Your task to perform on an android device: check storage Image 0: 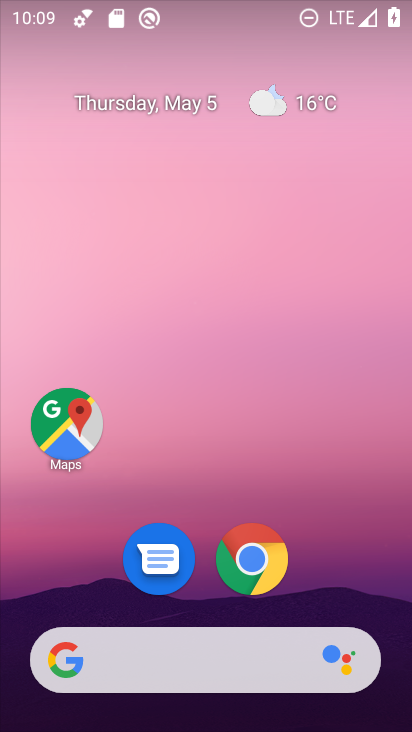
Step 0: drag from (378, 642) to (318, 62)
Your task to perform on an android device: check storage Image 1: 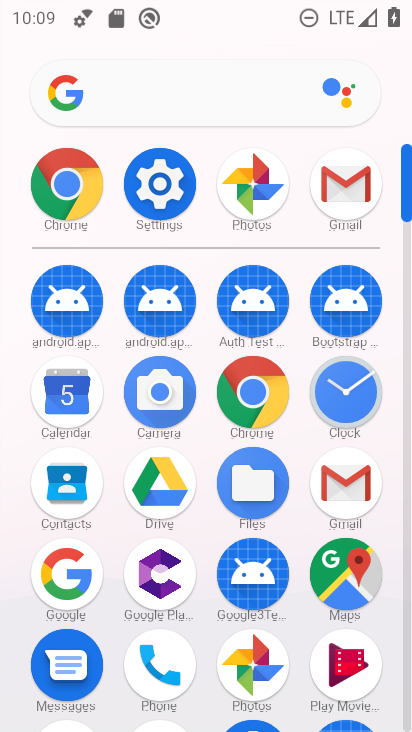
Step 1: click (153, 178)
Your task to perform on an android device: check storage Image 2: 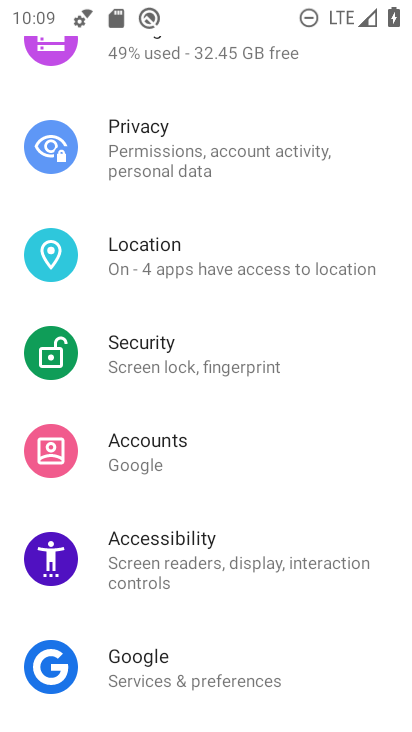
Step 2: drag from (169, 620) to (194, 134)
Your task to perform on an android device: check storage Image 3: 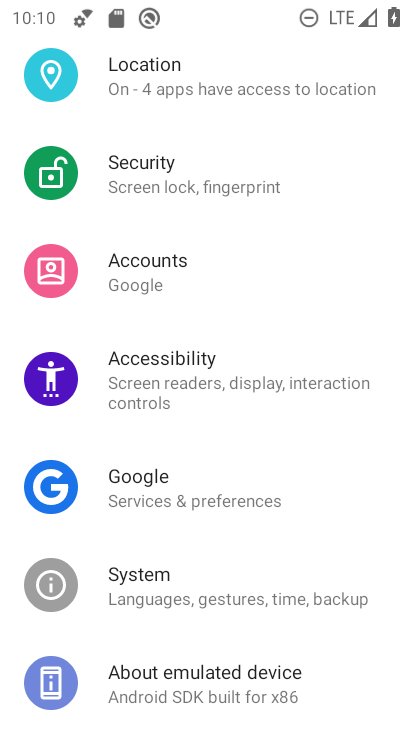
Step 3: drag from (218, 156) to (231, 684)
Your task to perform on an android device: check storage Image 4: 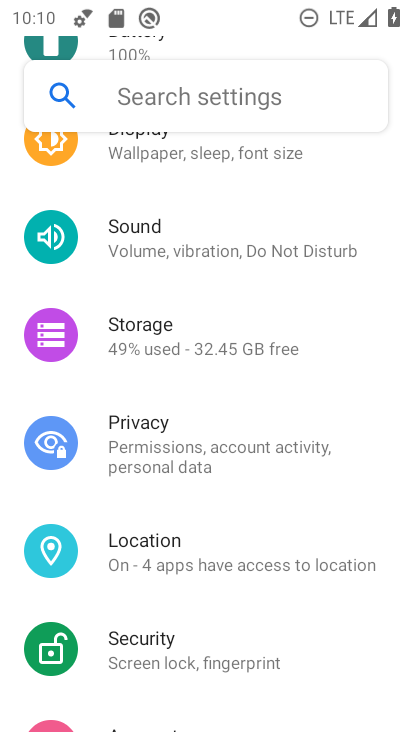
Step 4: click (174, 346)
Your task to perform on an android device: check storage Image 5: 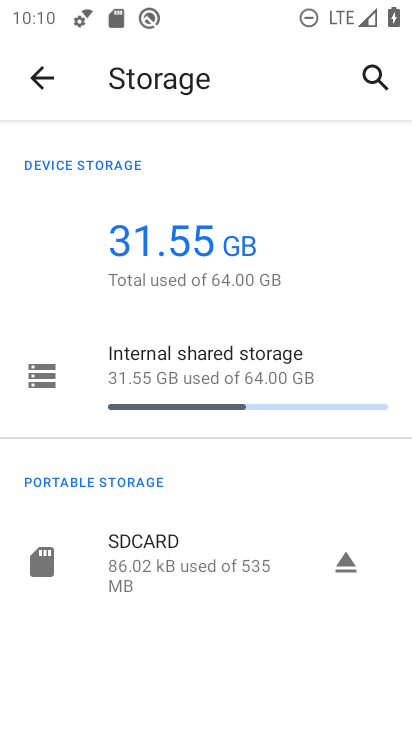
Step 5: click (204, 372)
Your task to perform on an android device: check storage Image 6: 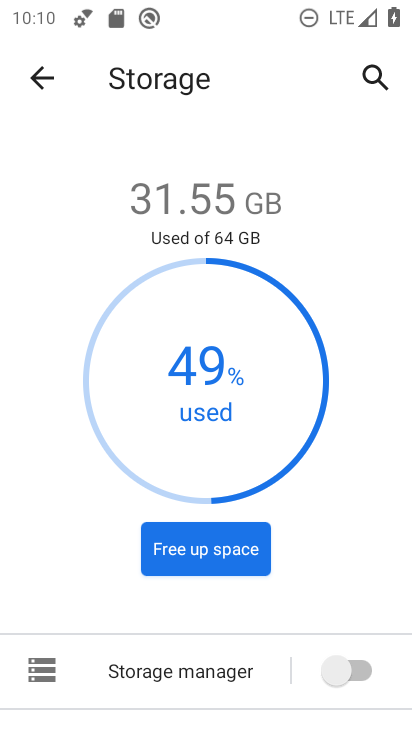
Step 6: task complete